Your task to perform on an android device: choose inbox layout in the gmail app Image 0: 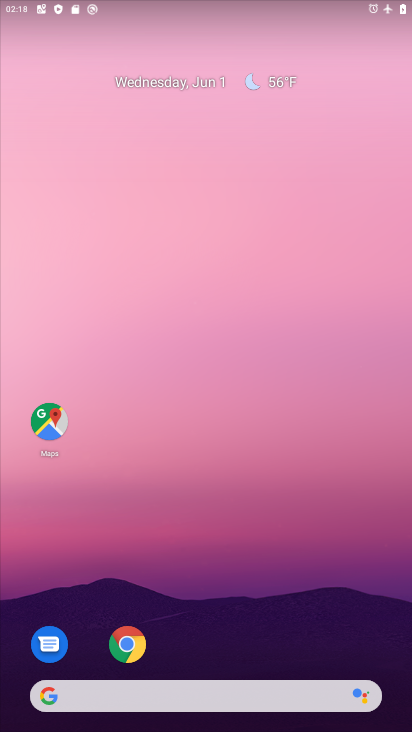
Step 0: click (227, 193)
Your task to perform on an android device: choose inbox layout in the gmail app Image 1: 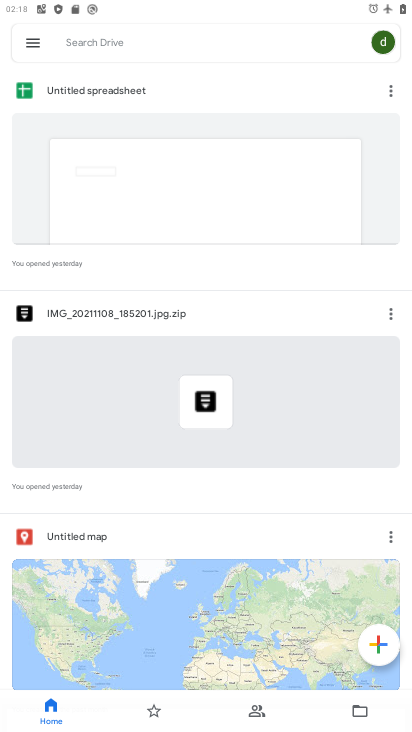
Step 1: press home button
Your task to perform on an android device: choose inbox layout in the gmail app Image 2: 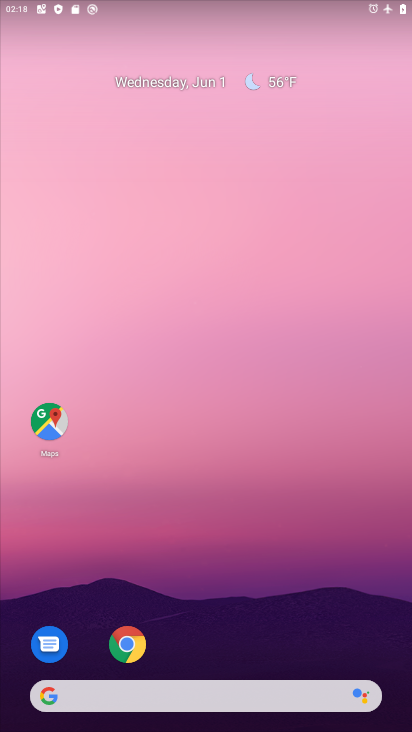
Step 2: drag from (255, 678) to (234, 336)
Your task to perform on an android device: choose inbox layout in the gmail app Image 3: 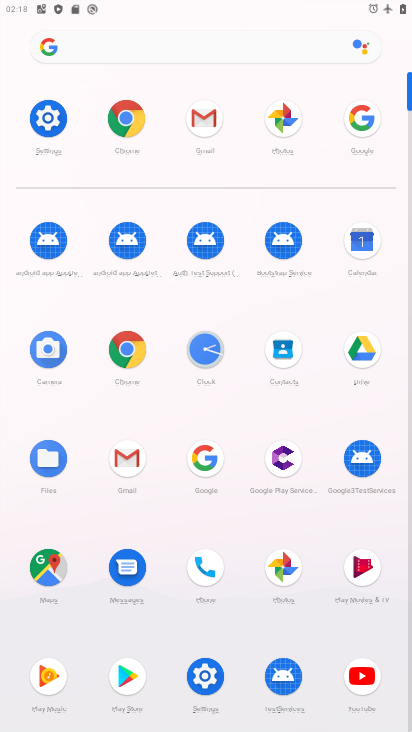
Step 3: click (215, 124)
Your task to perform on an android device: choose inbox layout in the gmail app Image 4: 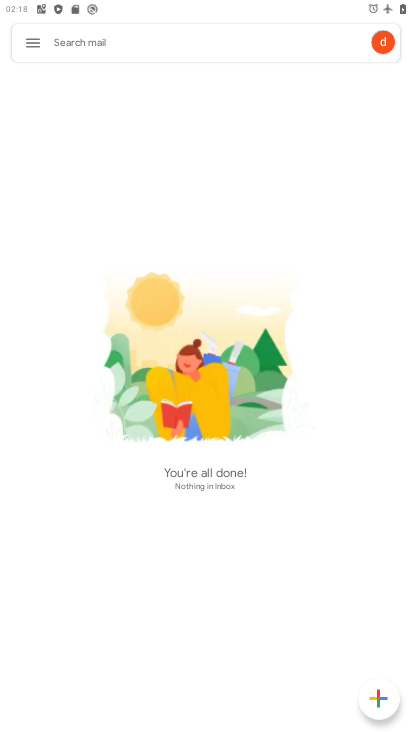
Step 4: click (37, 44)
Your task to perform on an android device: choose inbox layout in the gmail app Image 5: 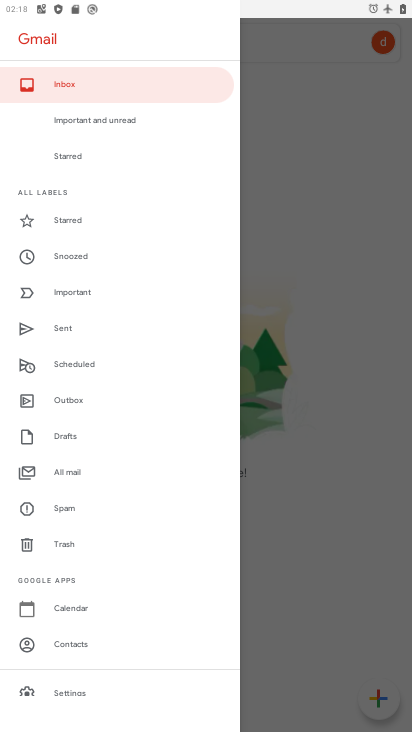
Step 5: click (76, 690)
Your task to perform on an android device: choose inbox layout in the gmail app Image 6: 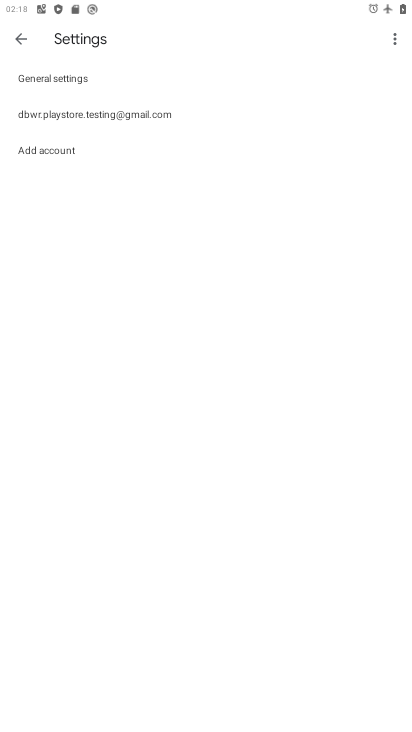
Step 6: click (91, 116)
Your task to perform on an android device: choose inbox layout in the gmail app Image 7: 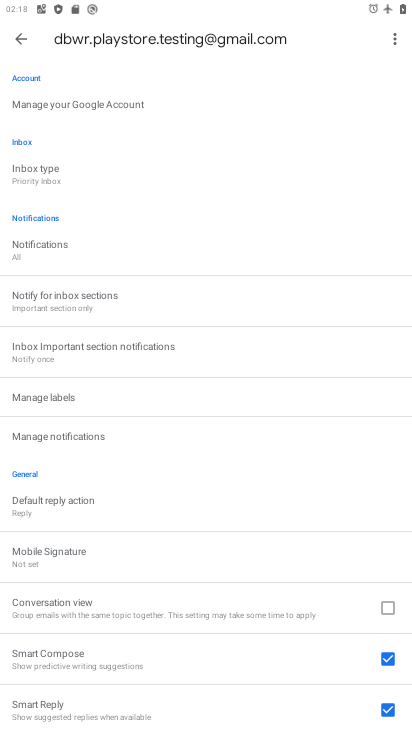
Step 7: click (67, 176)
Your task to perform on an android device: choose inbox layout in the gmail app Image 8: 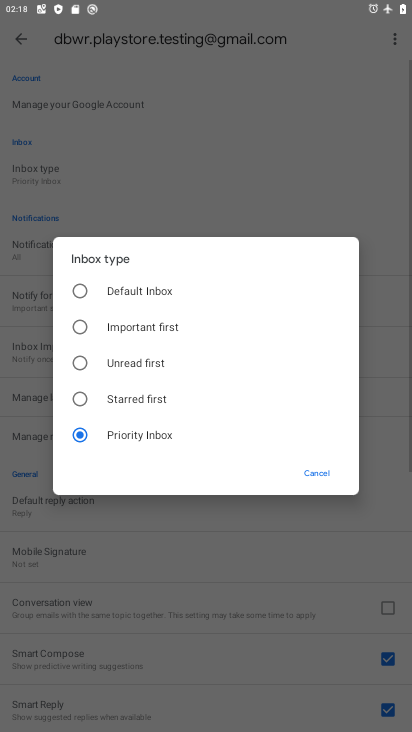
Step 8: click (142, 294)
Your task to perform on an android device: choose inbox layout in the gmail app Image 9: 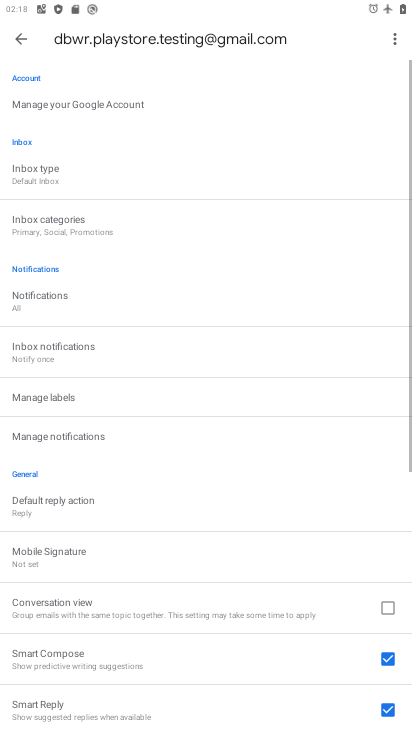
Step 9: task complete